Your task to perform on an android device: allow cookies in the chrome app Image 0: 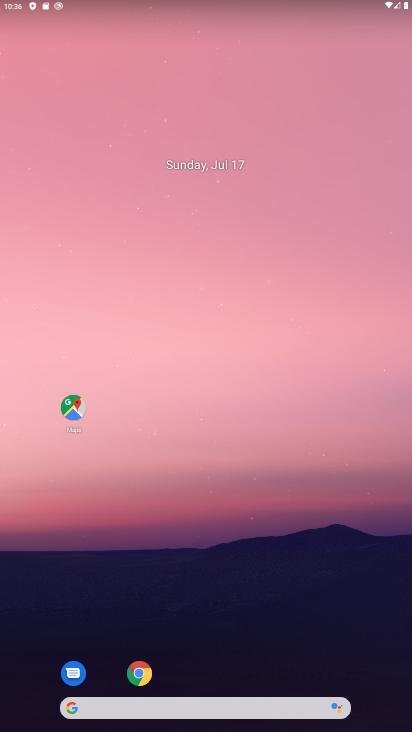
Step 0: drag from (225, 659) to (245, 108)
Your task to perform on an android device: allow cookies in the chrome app Image 1: 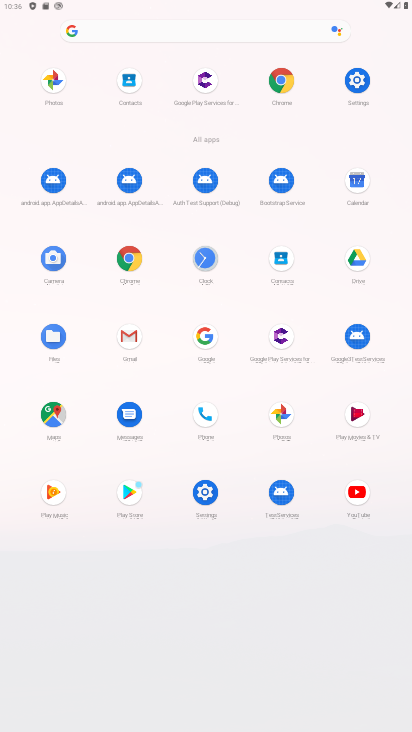
Step 1: click (130, 261)
Your task to perform on an android device: allow cookies in the chrome app Image 2: 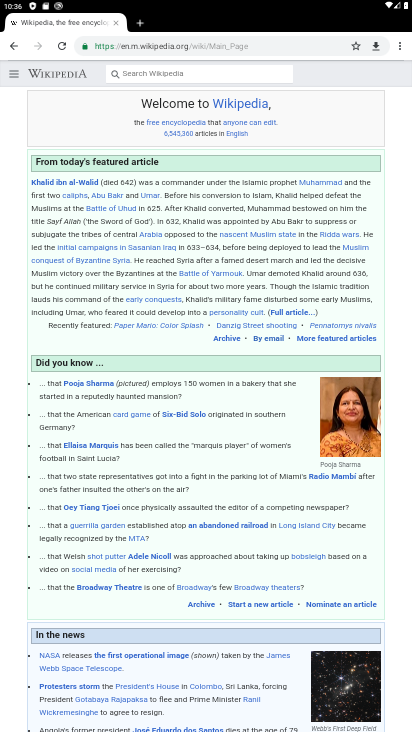
Step 2: click (396, 44)
Your task to perform on an android device: allow cookies in the chrome app Image 3: 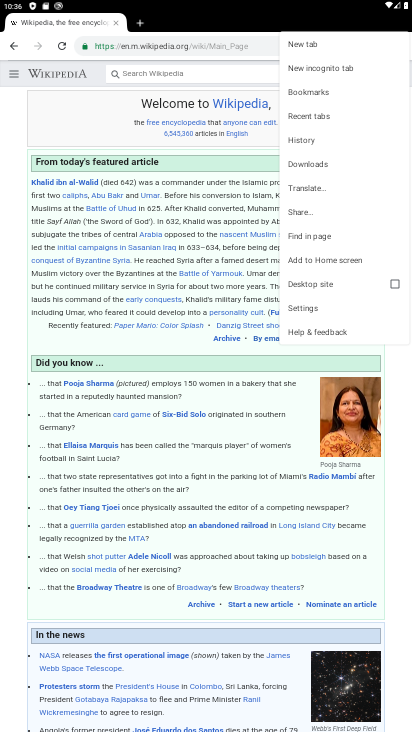
Step 3: click (311, 308)
Your task to perform on an android device: allow cookies in the chrome app Image 4: 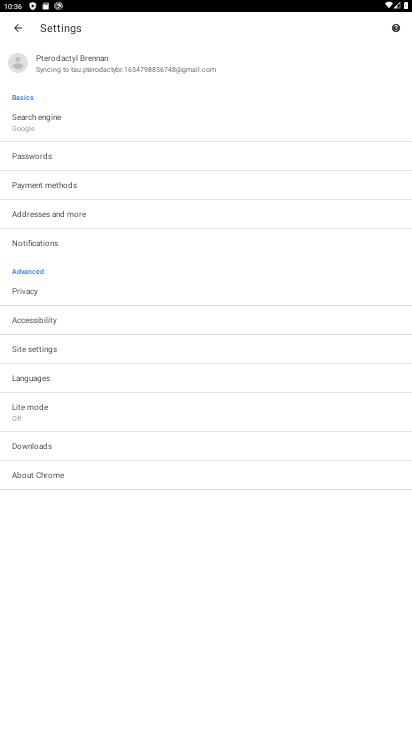
Step 4: click (27, 349)
Your task to perform on an android device: allow cookies in the chrome app Image 5: 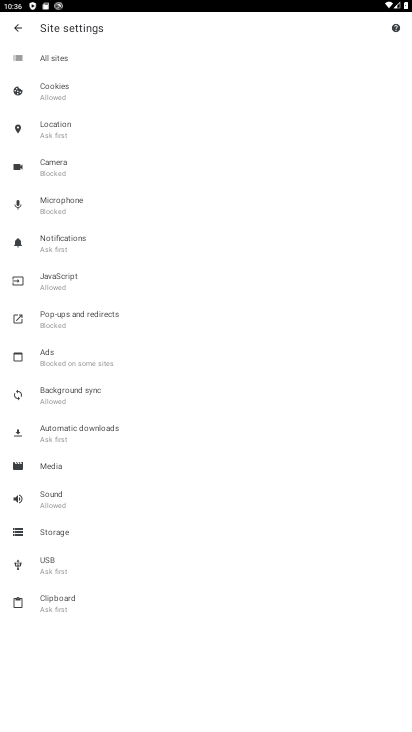
Step 5: click (106, 97)
Your task to perform on an android device: allow cookies in the chrome app Image 6: 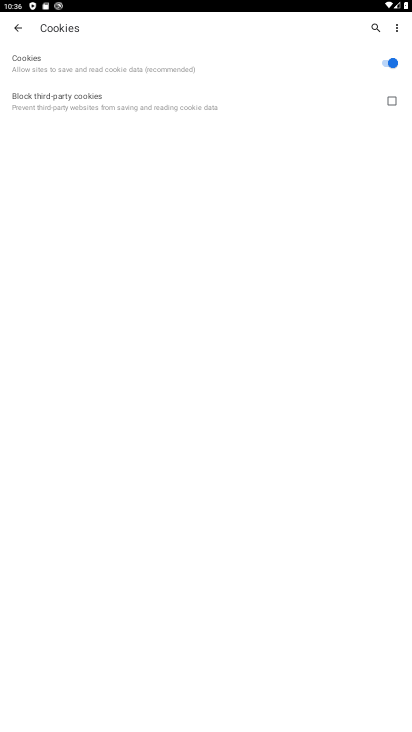
Step 6: task complete